Your task to perform on an android device: check storage Image 0: 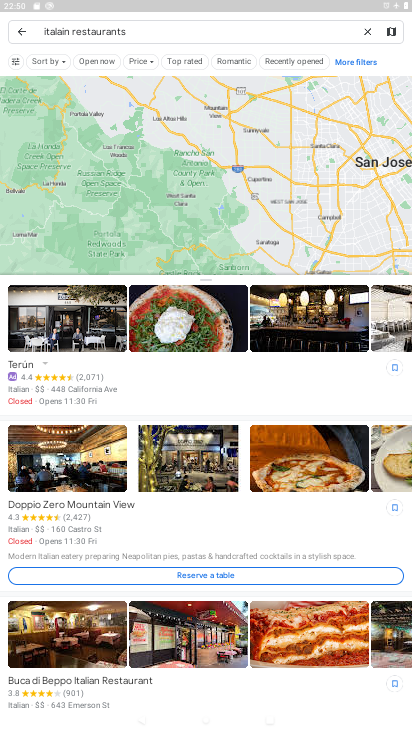
Step 0: press home button
Your task to perform on an android device: check storage Image 1: 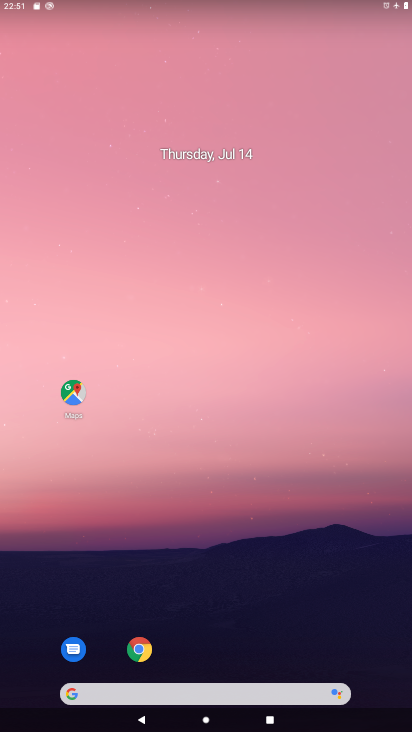
Step 1: drag from (165, 542) to (242, 22)
Your task to perform on an android device: check storage Image 2: 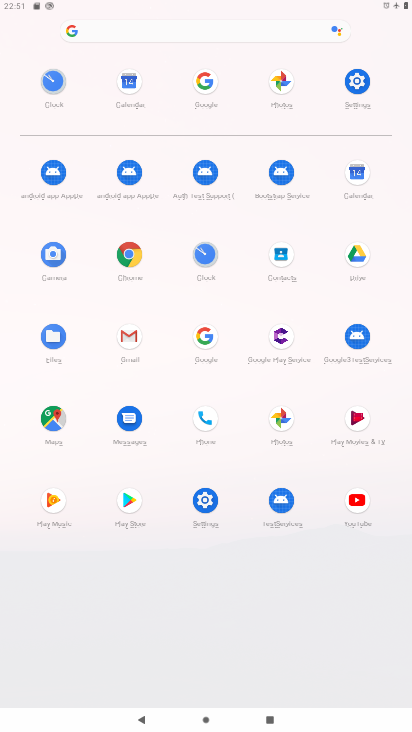
Step 2: click (359, 77)
Your task to perform on an android device: check storage Image 3: 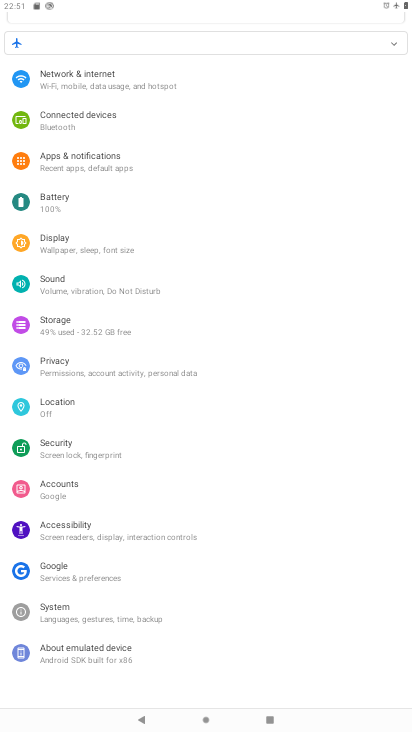
Step 3: click (57, 325)
Your task to perform on an android device: check storage Image 4: 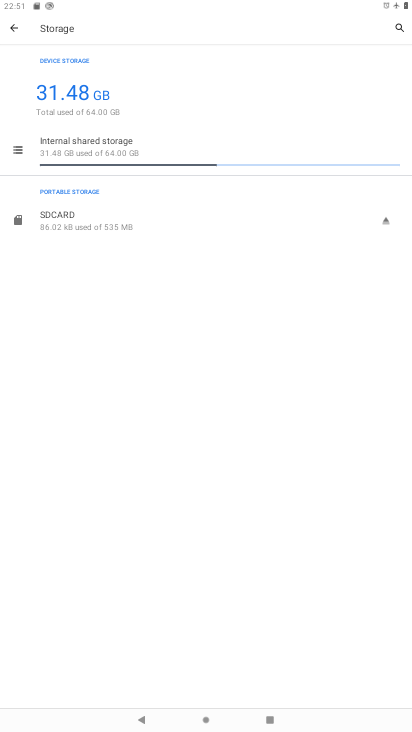
Step 4: task complete